Your task to perform on an android device: Go to Amazon Image 0: 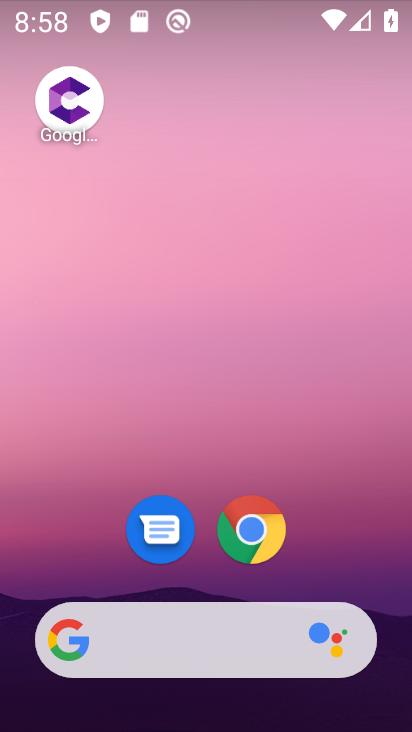
Step 0: click (258, 521)
Your task to perform on an android device: Go to Amazon Image 1: 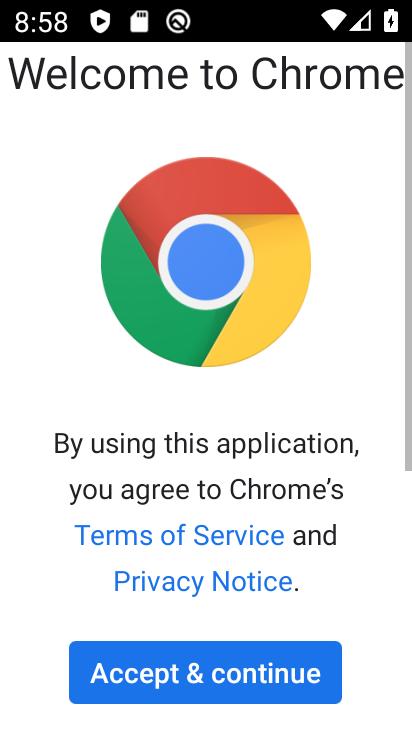
Step 1: click (212, 682)
Your task to perform on an android device: Go to Amazon Image 2: 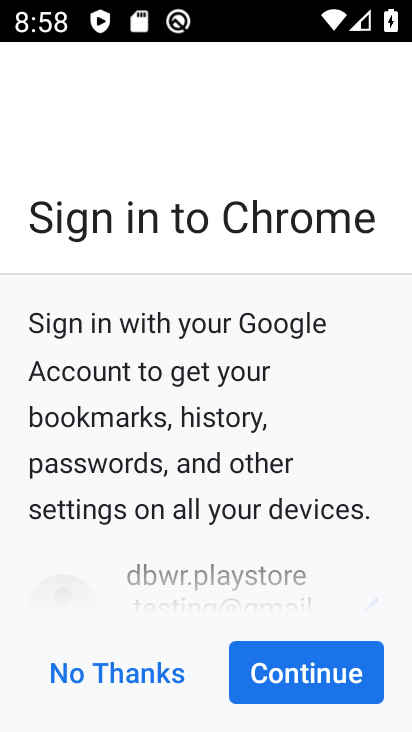
Step 2: click (212, 682)
Your task to perform on an android device: Go to Amazon Image 3: 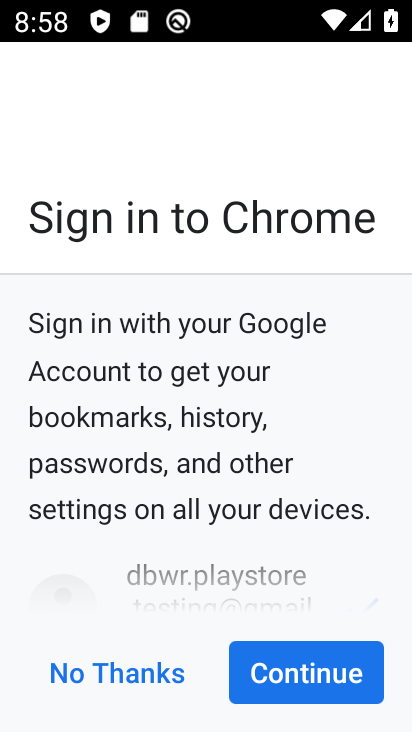
Step 3: click (244, 679)
Your task to perform on an android device: Go to Amazon Image 4: 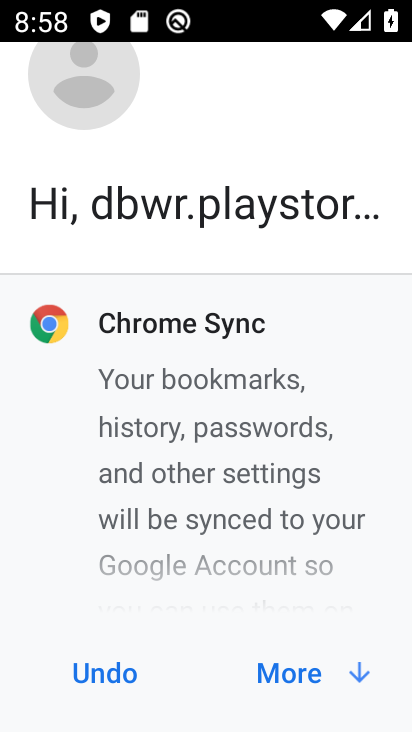
Step 4: click (322, 665)
Your task to perform on an android device: Go to Amazon Image 5: 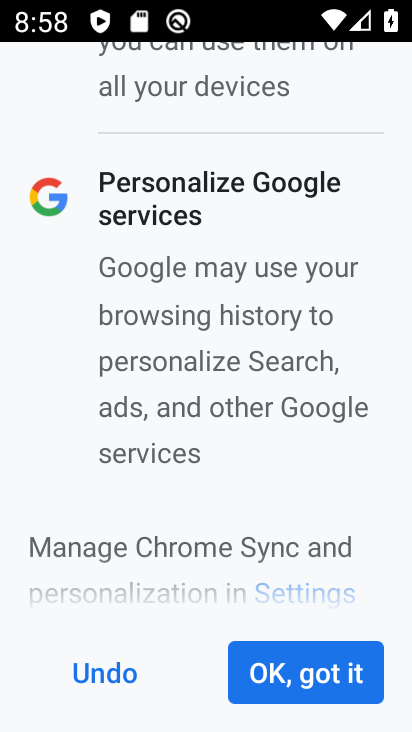
Step 5: click (322, 665)
Your task to perform on an android device: Go to Amazon Image 6: 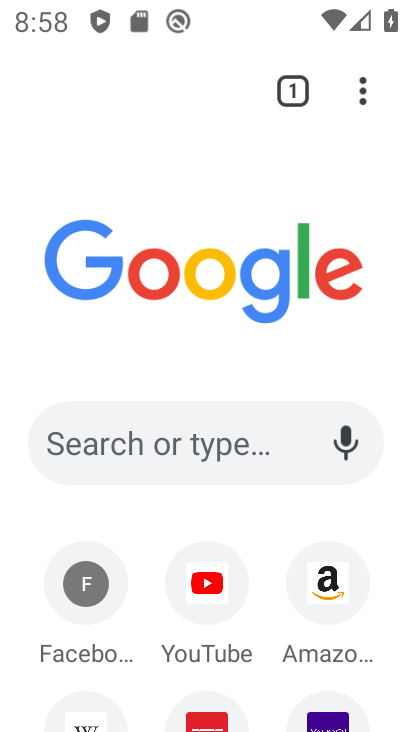
Step 6: click (322, 582)
Your task to perform on an android device: Go to Amazon Image 7: 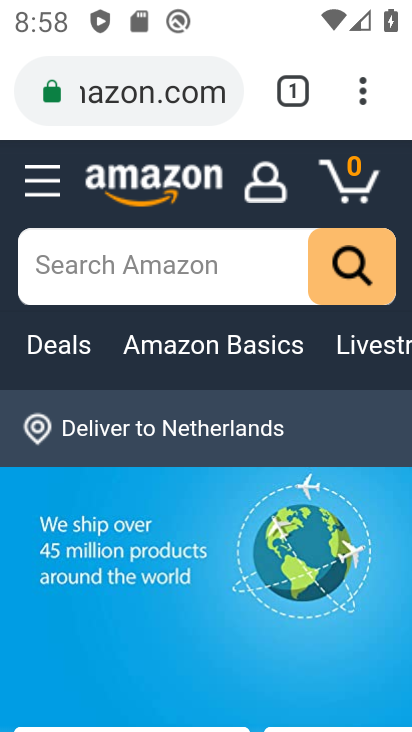
Step 7: task complete